Your task to perform on an android device: Open display settings Image 0: 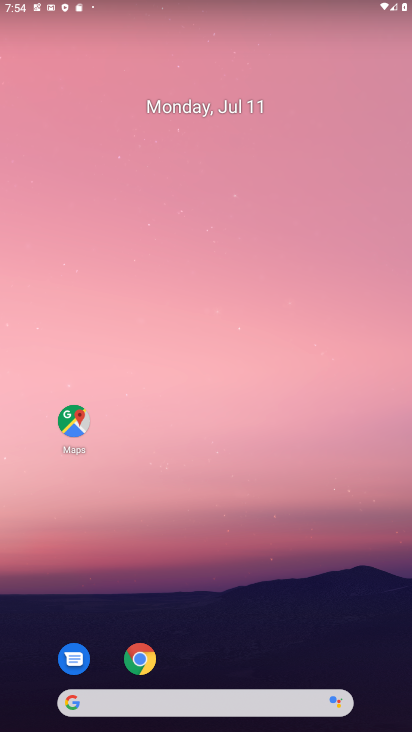
Step 0: drag from (13, 208) to (398, 280)
Your task to perform on an android device: Open display settings Image 1: 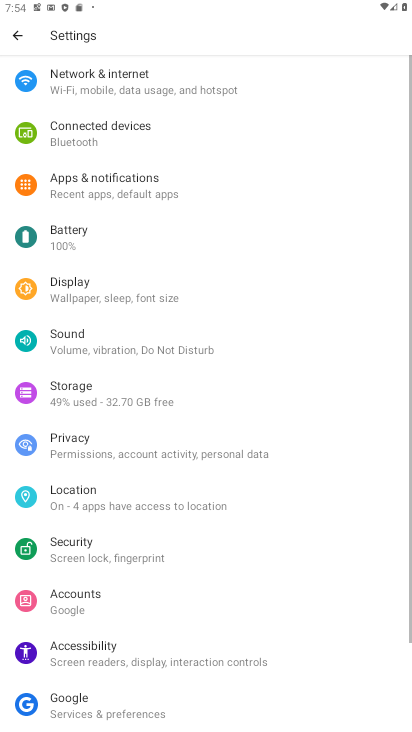
Step 1: click (71, 287)
Your task to perform on an android device: Open display settings Image 2: 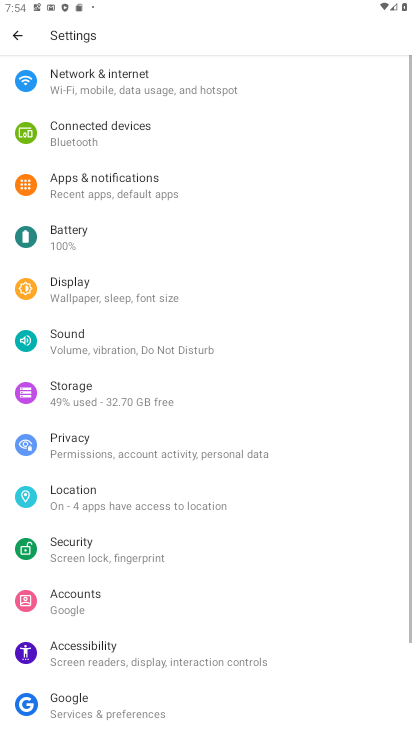
Step 2: click (71, 287)
Your task to perform on an android device: Open display settings Image 3: 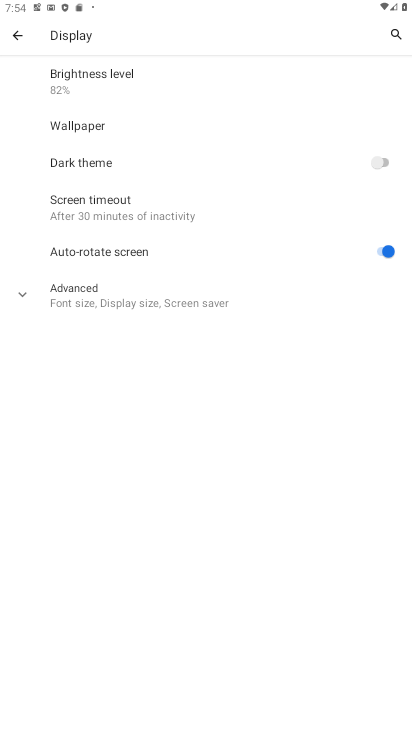
Step 3: task complete